Your task to perform on an android device: Go to accessibility settings Image 0: 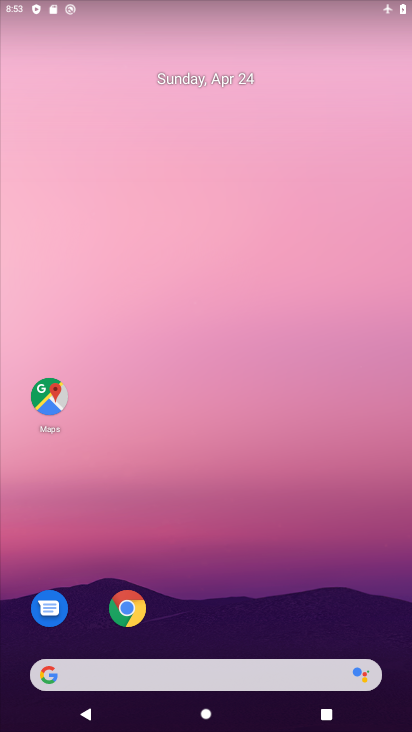
Step 0: drag from (191, 607) to (202, 151)
Your task to perform on an android device: Go to accessibility settings Image 1: 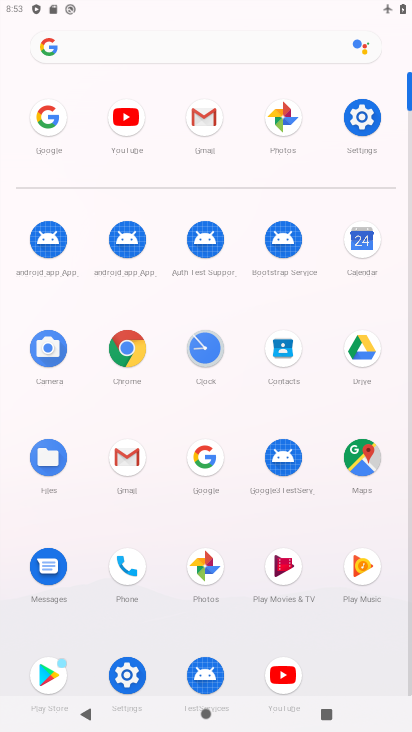
Step 1: click (359, 127)
Your task to perform on an android device: Go to accessibility settings Image 2: 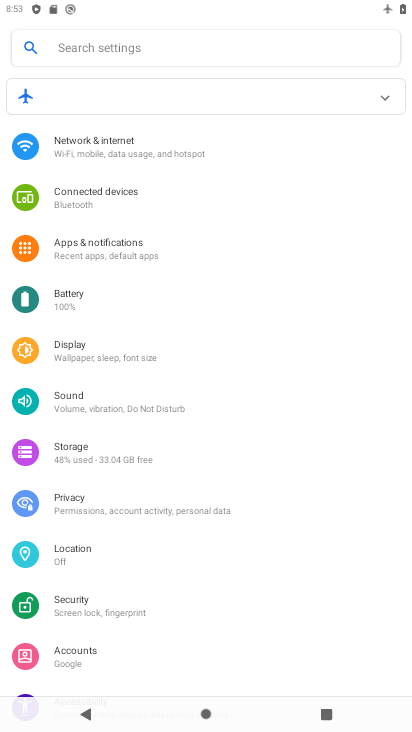
Step 2: drag from (144, 583) to (225, 216)
Your task to perform on an android device: Go to accessibility settings Image 3: 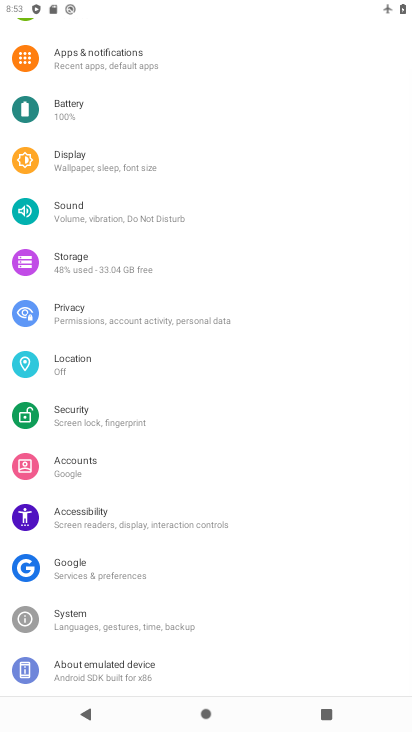
Step 3: drag from (226, 538) to (248, 366)
Your task to perform on an android device: Go to accessibility settings Image 4: 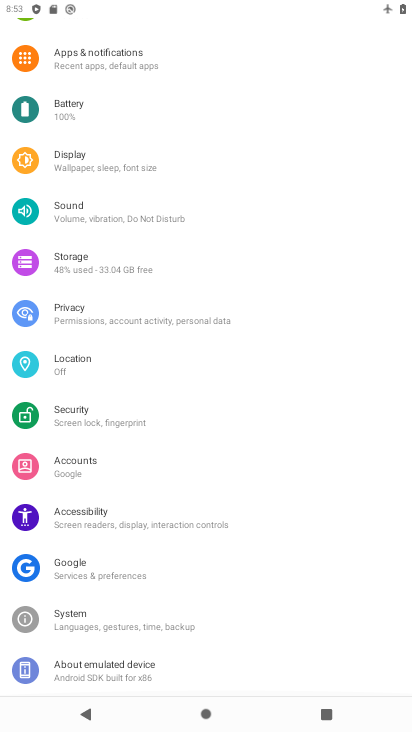
Step 4: click (94, 514)
Your task to perform on an android device: Go to accessibility settings Image 5: 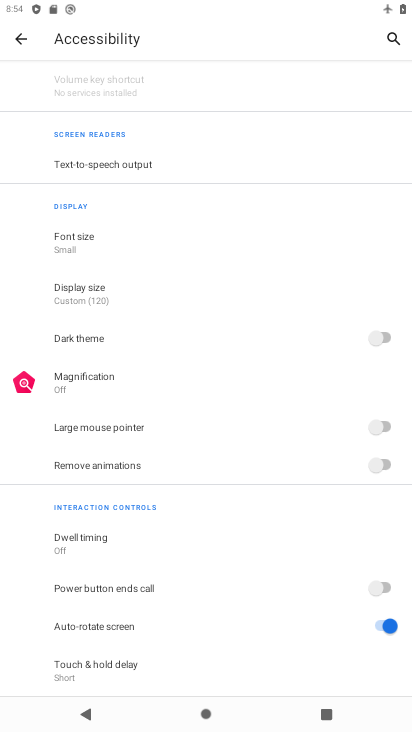
Step 5: task complete